Your task to perform on an android device: clear history in the chrome app Image 0: 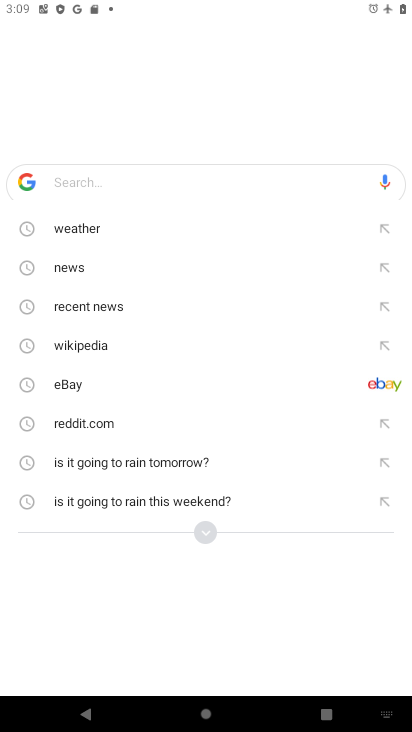
Step 0: press home button
Your task to perform on an android device: clear history in the chrome app Image 1: 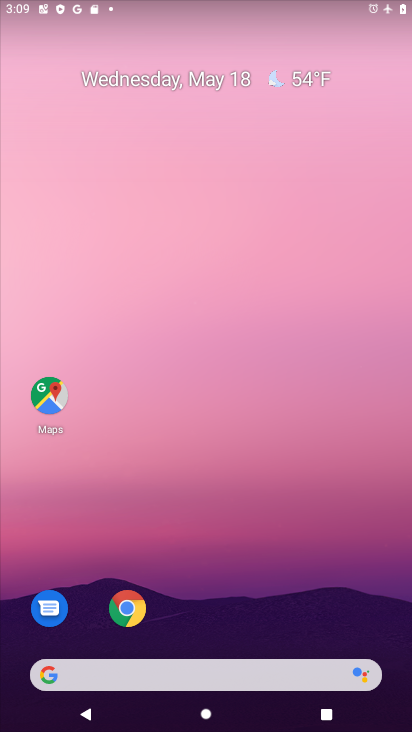
Step 1: click (133, 608)
Your task to perform on an android device: clear history in the chrome app Image 2: 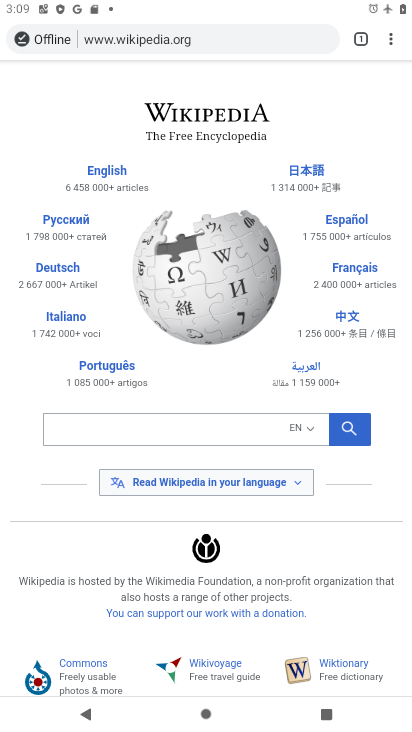
Step 2: click (392, 42)
Your task to perform on an android device: clear history in the chrome app Image 3: 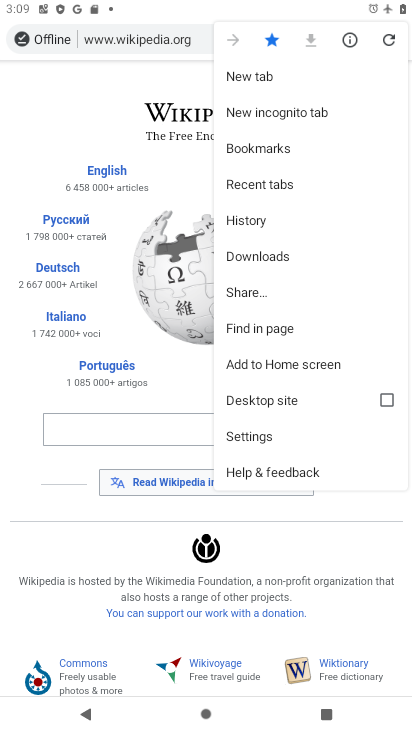
Step 3: click (247, 225)
Your task to perform on an android device: clear history in the chrome app Image 4: 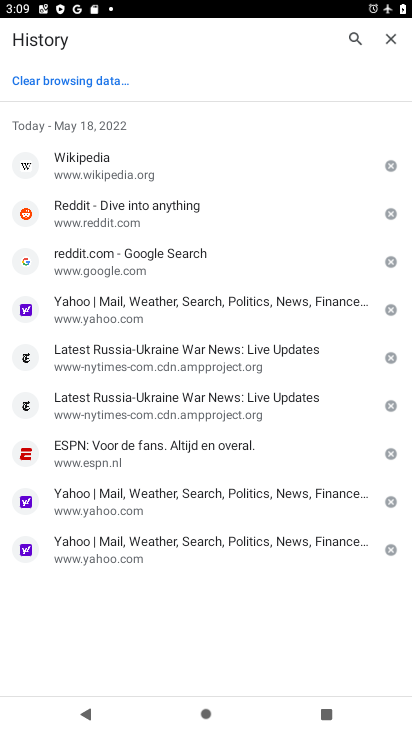
Step 4: click (43, 84)
Your task to perform on an android device: clear history in the chrome app Image 5: 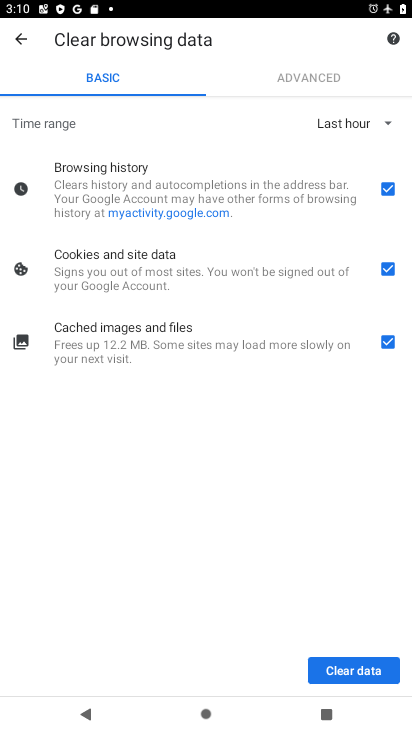
Step 5: click (380, 263)
Your task to perform on an android device: clear history in the chrome app Image 6: 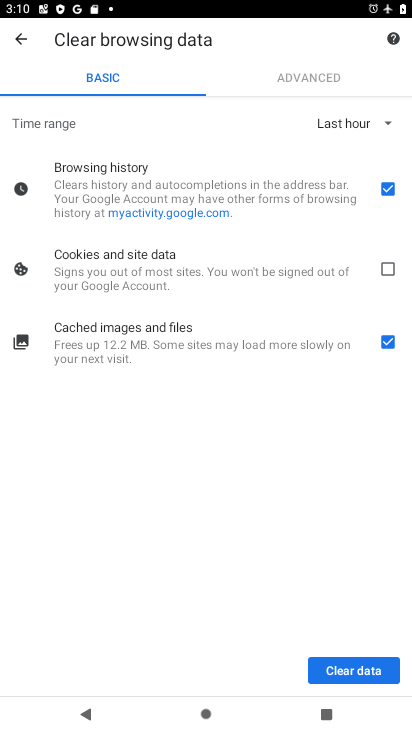
Step 6: click (387, 337)
Your task to perform on an android device: clear history in the chrome app Image 7: 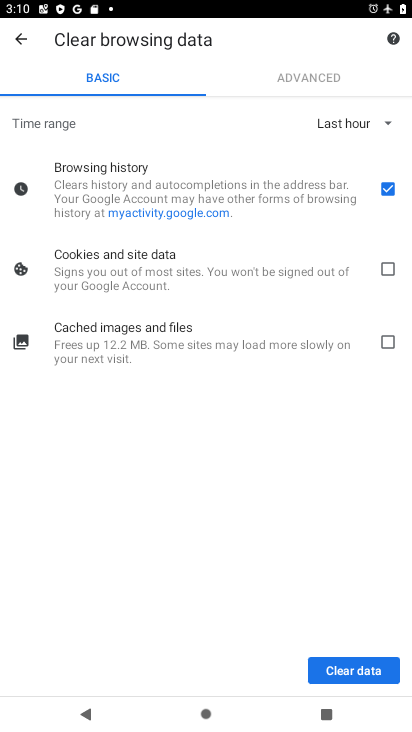
Step 7: click (357, 670)
Your task to perform on an android device: clear history in the chrome app Image 8: 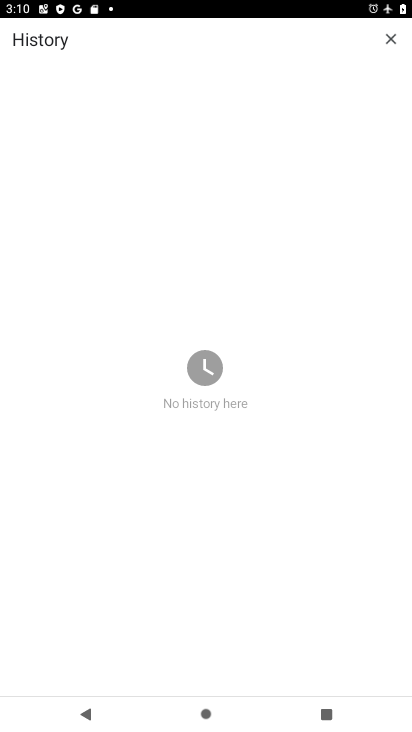
Step 8: task complete